Your task to perform on an android device: Open location settings Image 0: 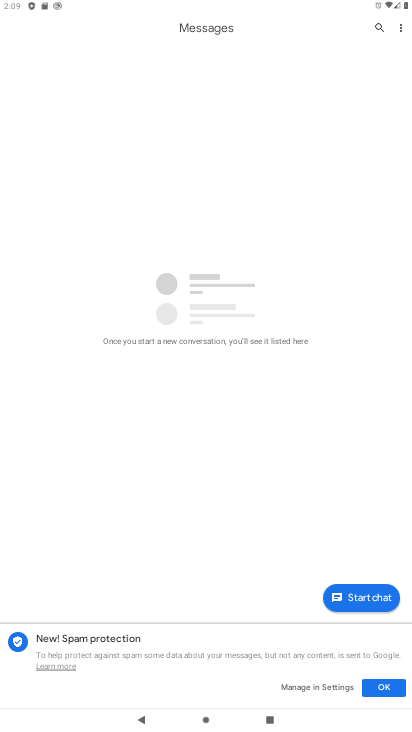
Step 0: press home button
Your task to perform on an android device: Open location settings Image 1: 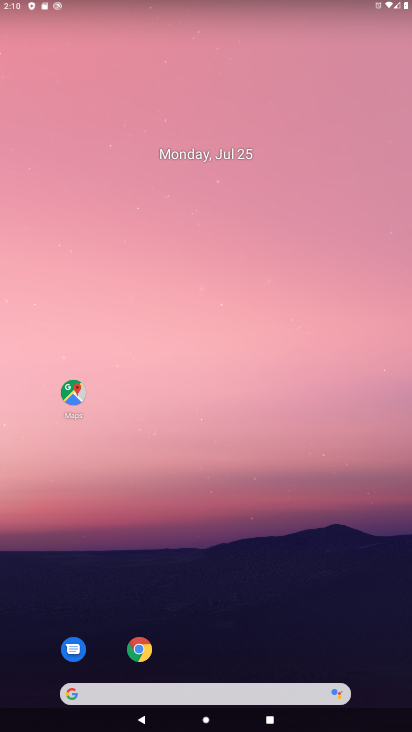
Step 1: drag from (384, 661) to (317, 189)
Your task to perform on an android device: Open location settings Image 2: 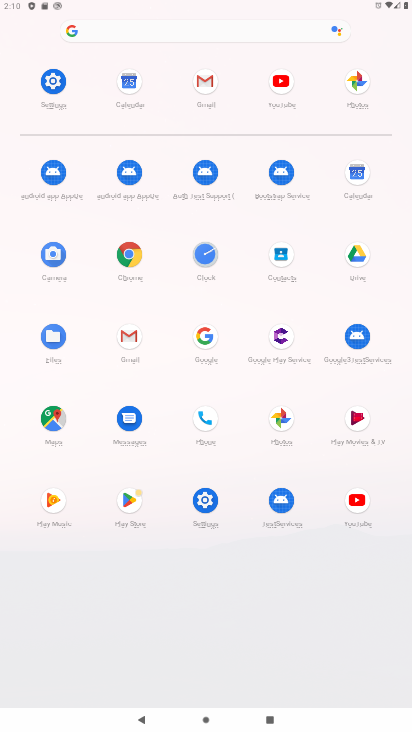
Step 2: click (205, 499)
Your task to perform on an android device: Open location settings Image 3: 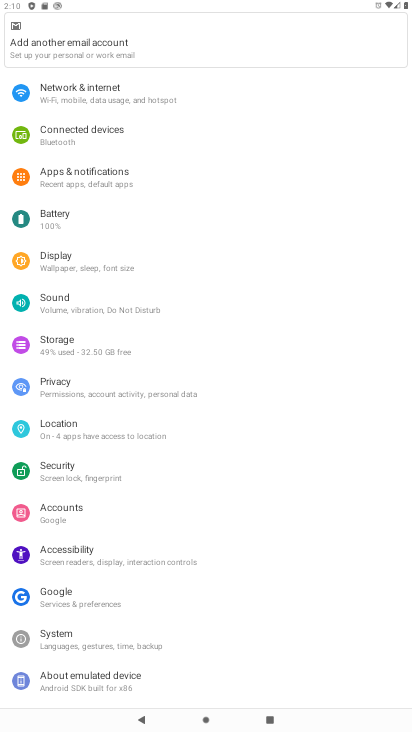
Step 3: click (68, 418)
Your task to perform on an android device: Open location settings Image 4: 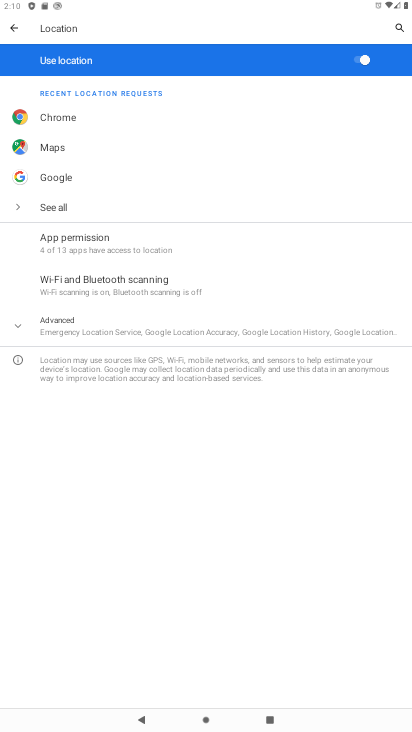
Step 4: click (18, 321)
Your task to perform on an android device: Open location settings Image 5: 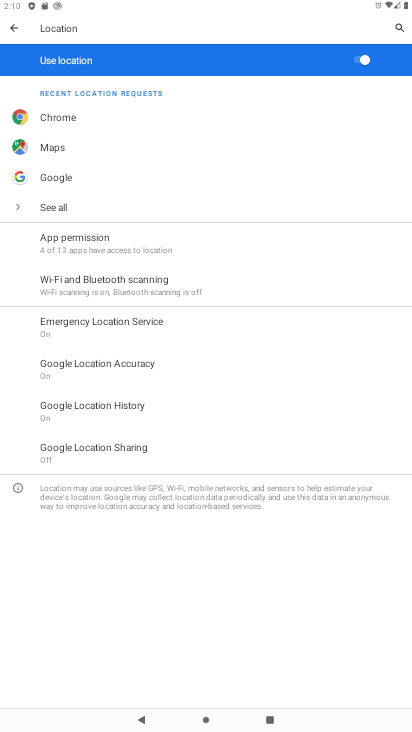
Step 5: task complete